Your task to perform on an android device: change timer sound Image 0: 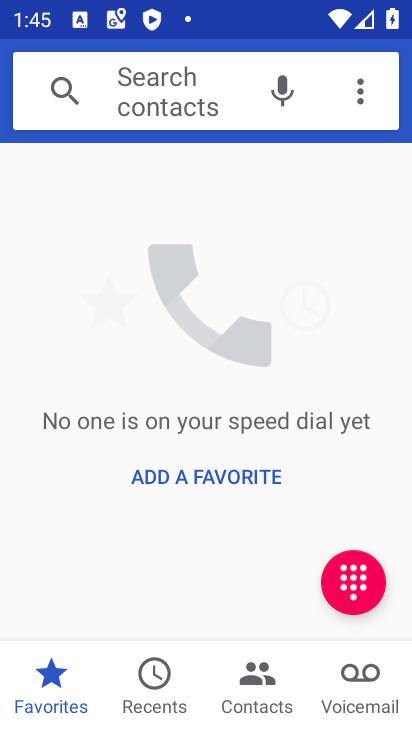
Step 0: press home button
Your task to perform on an android device: change timer sound Image 1: 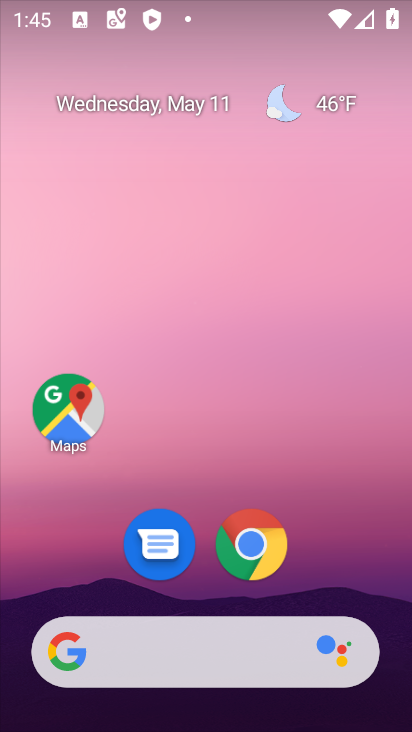
Step 1: drag from (389, 629) to (252, 131)
Your task to perform on an android device: change timer sound Image 2: 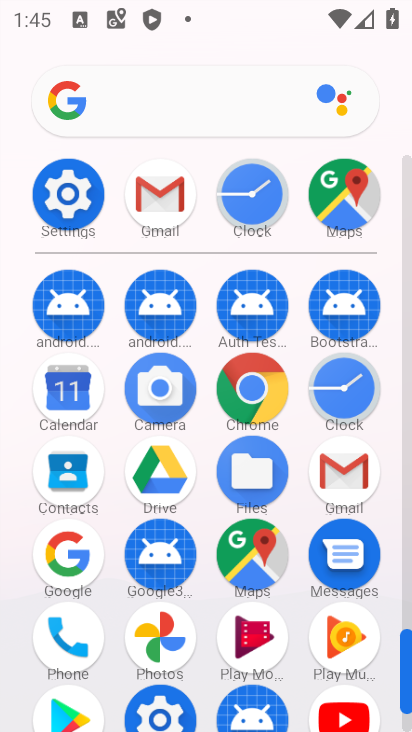
Step 2: click (408, 611)
Your task to perform on an android device: change timer sound Image 3: 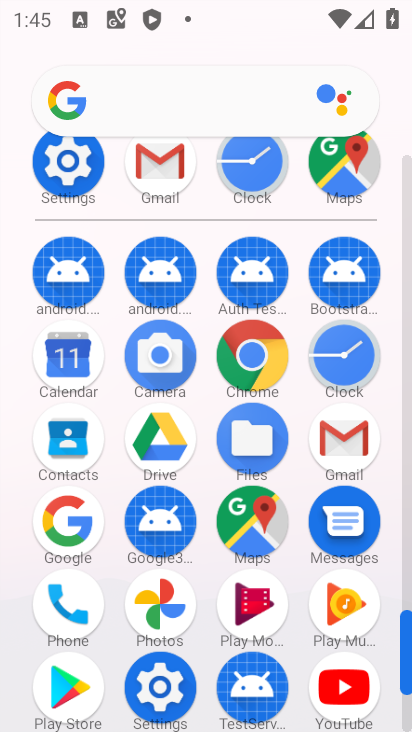
Step 3: click (406, 720)
Your task to perform on an android device: change timer sound Image 4: 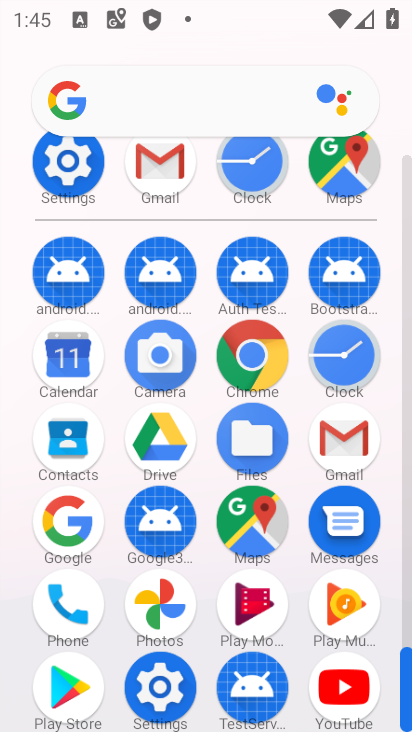
Step 4: click (344, 355)
Your task to perform on an android device: change timer sound Image 5: 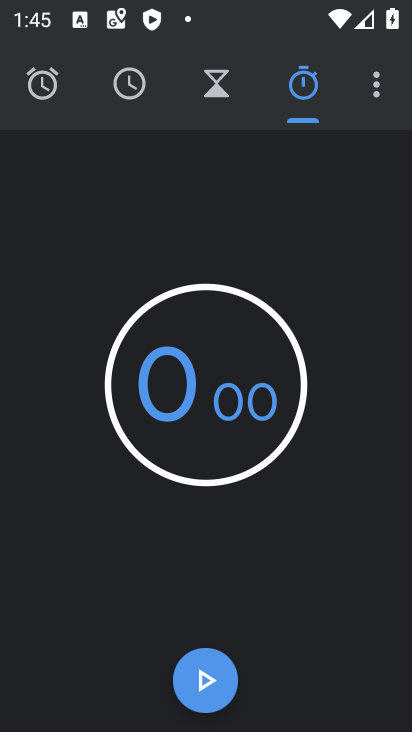
Step 5: click (371, 87)
Your task to perform on an android device: change timer sound Image 6: 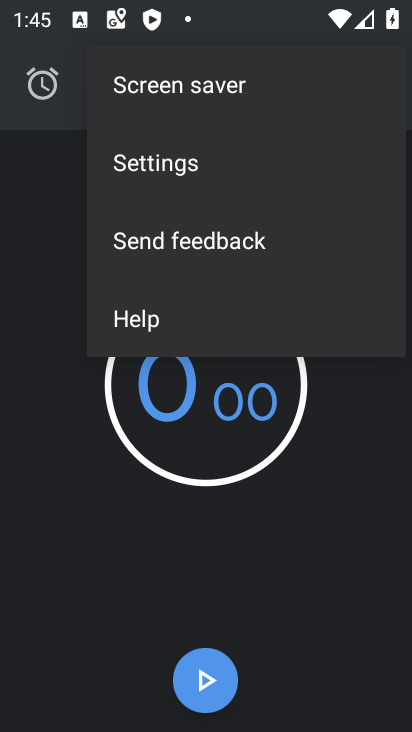
Step 6: click (152, 153)
Your task to perform on an android device: change timer sound Image 7: 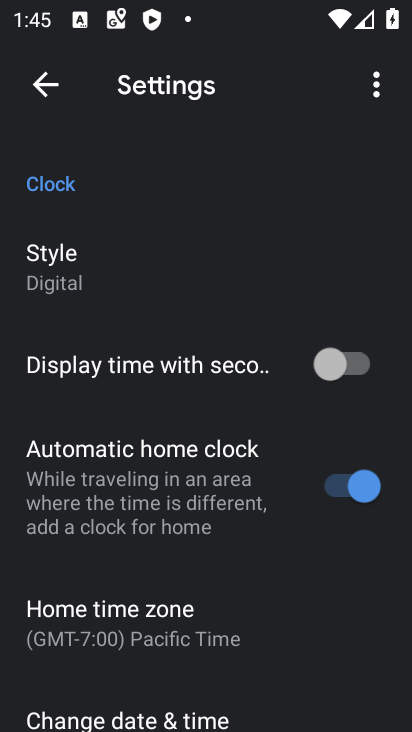
Step 7: drag from (279, 671) to (264, 220)
Your task to perform on an android device: change timer sound Image 8: 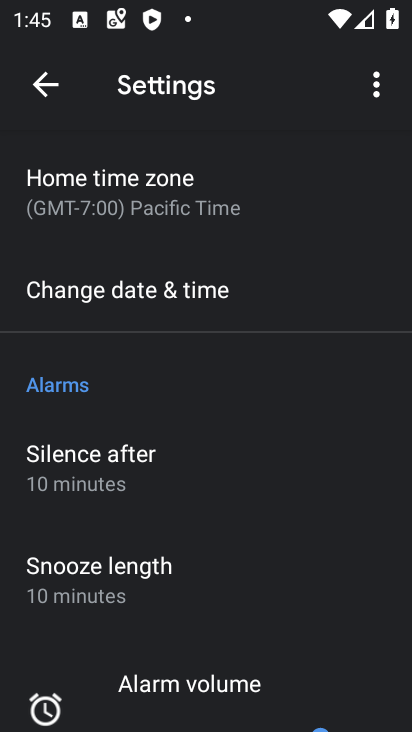
Step 8: drag from (211, 642) to (229, 189)
Your task to perform on an android device: change timer sound Image 9: 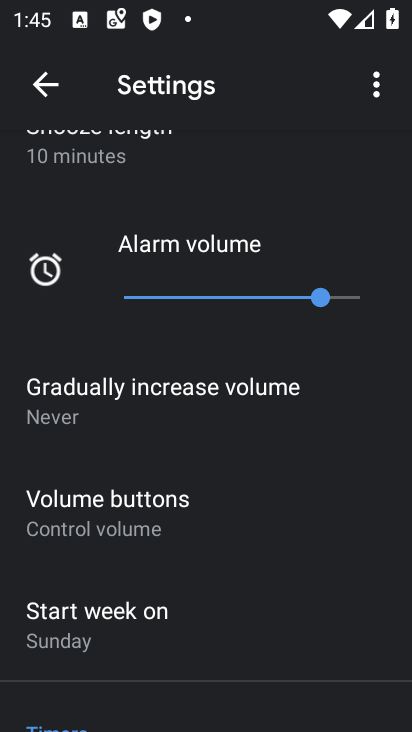
Step 9: drag from (198, 636) to (239, 113)
Your task to perform on an android device: change timer sound Image 10: 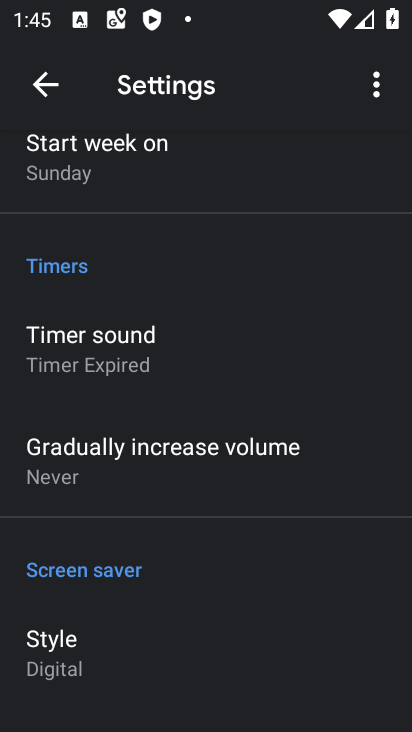
Step 10: click (80, 345)
Your task to perform on an android device: change timer sound Image 11: 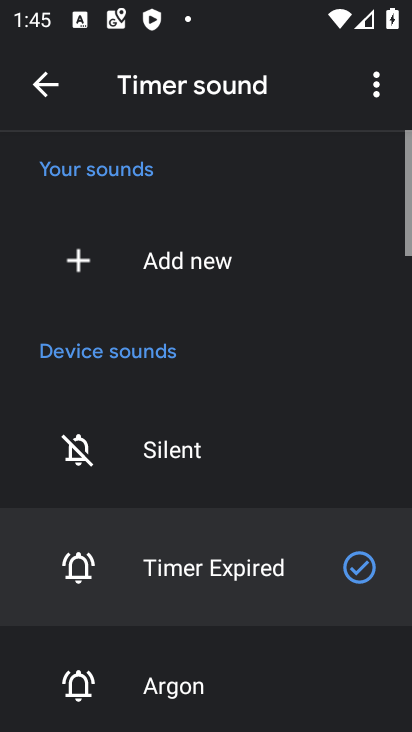
Step 11: drag from (259, 593) to (294, 109)
Your task to perform on an android device: change timer sound Image 12: 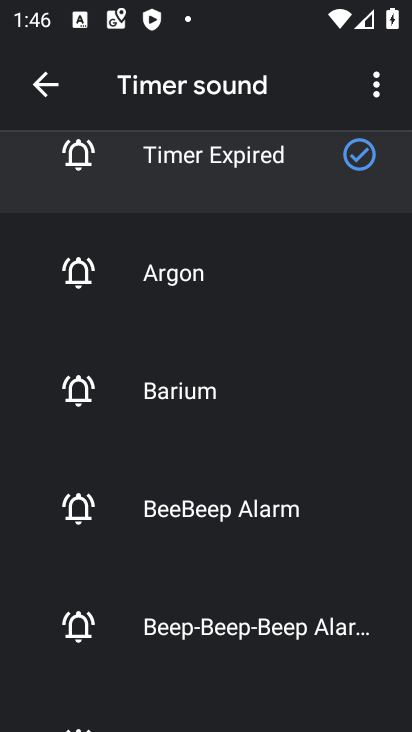
Step 12: click (161, 514)
Your task to perform on an android device: change timer sound Image 13: 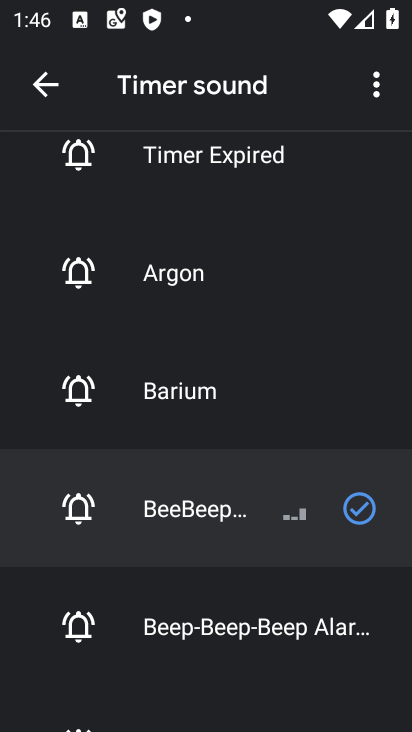
Step 13: task complete